Your task to perform on an android device: turn on the 12-hour format for clock Image 0: 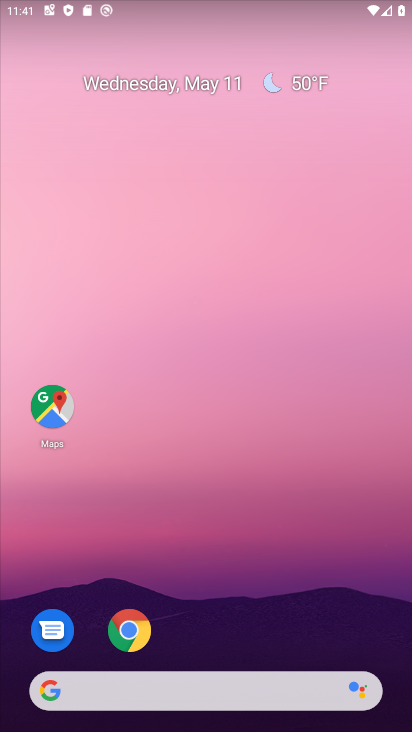
Step 0: drag from (196, 727) to (184, 164)
Your task to perform on an android device: turn on the 12-hour format for clock Image 1: 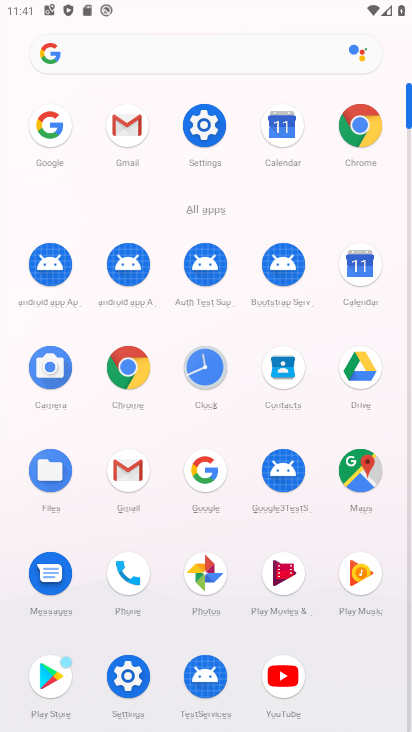
Step 1: click (211, 366)
Your task to perform on an android device: turn on the 12-hour format for clock Image 2: 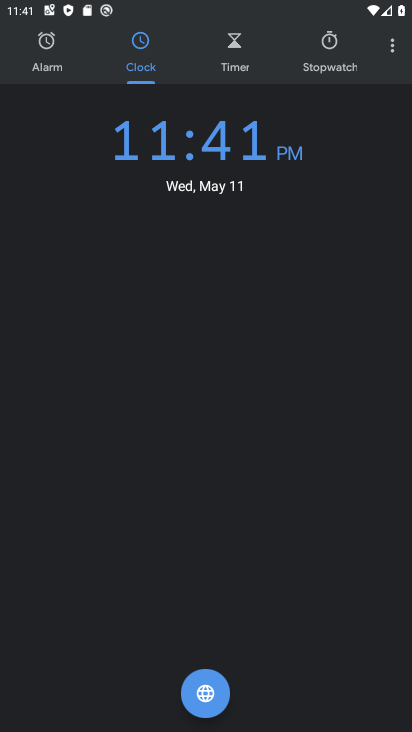
Step 2: click (395, 46)
Your task to perform on an android device: turn on the 12-hour format for clock Image 3: 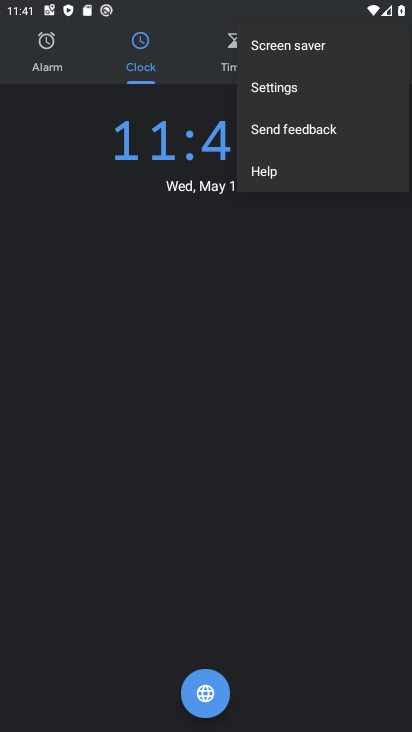
Step 3: click (279, 85)
Your task to perform on an android device: turn on the 12-hour format for clock Image 4: 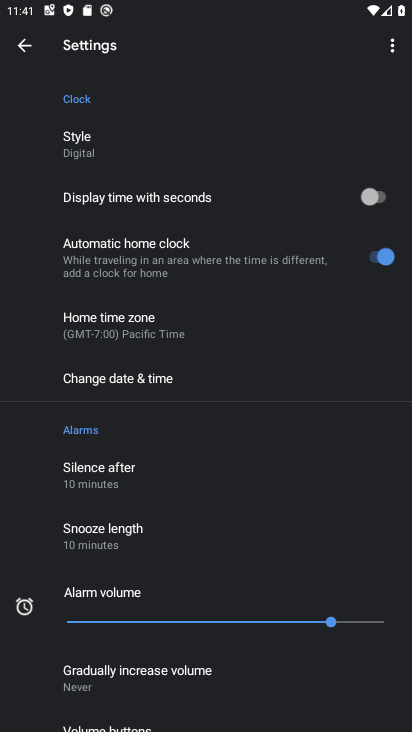
Step 4: click (110, 373)
Your task to perform on an android device: turn on the 12-hour format for clock Image 5: 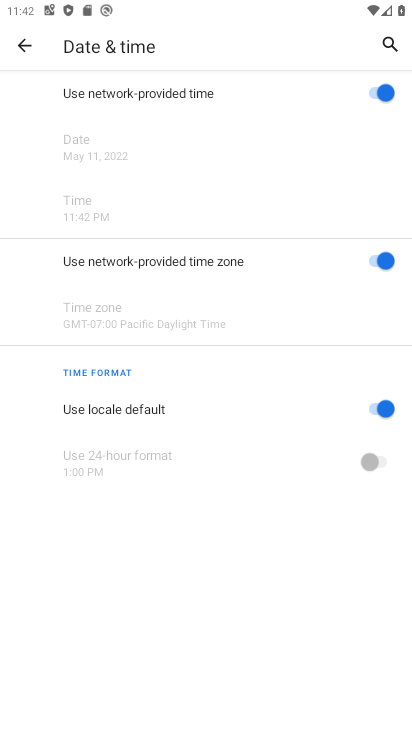
Step 5: task complete